Your task to perform on an android device: open app "Microsoft Outlook" (install if not already installed) Image 0: 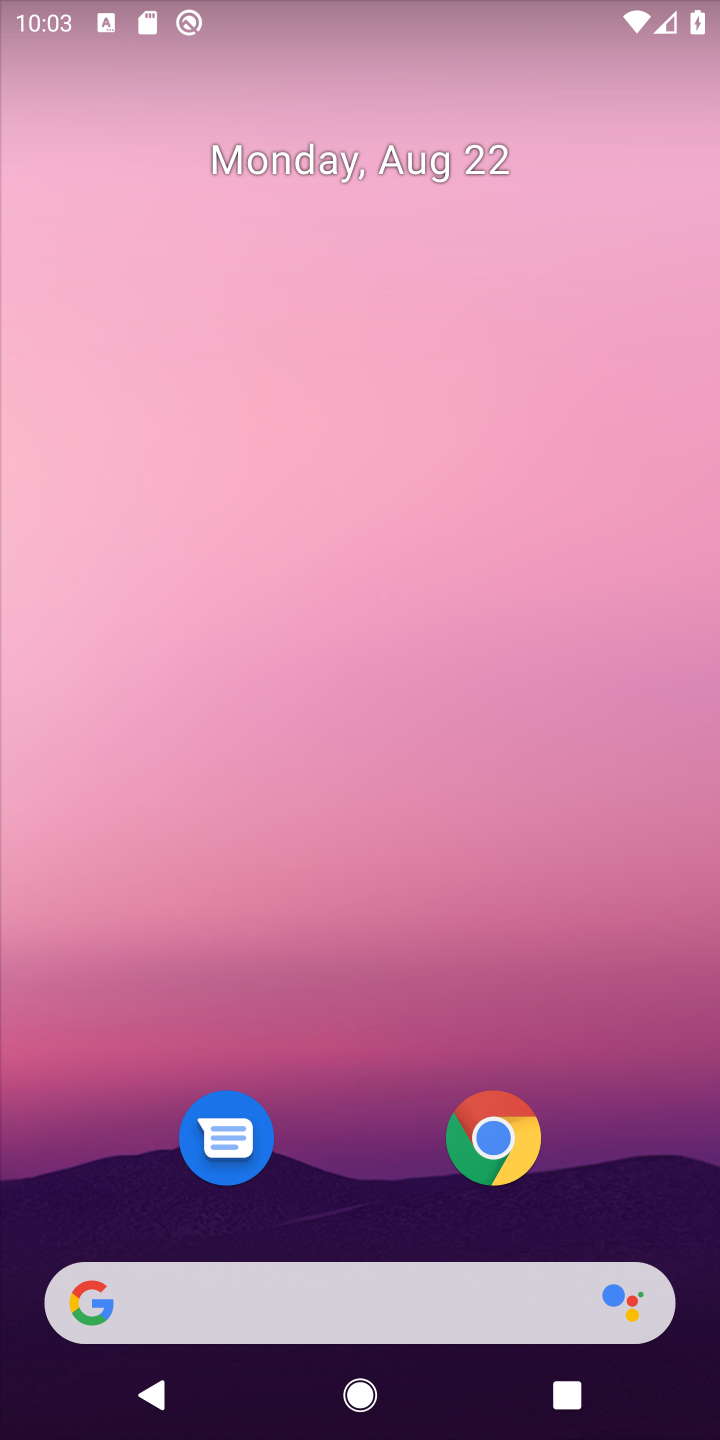
Step 0: drag from (354, 1230) to (365, 89)
Your task to perform on an android device: open app "Microsoft Outlook" (install if not already installed) Image 1: 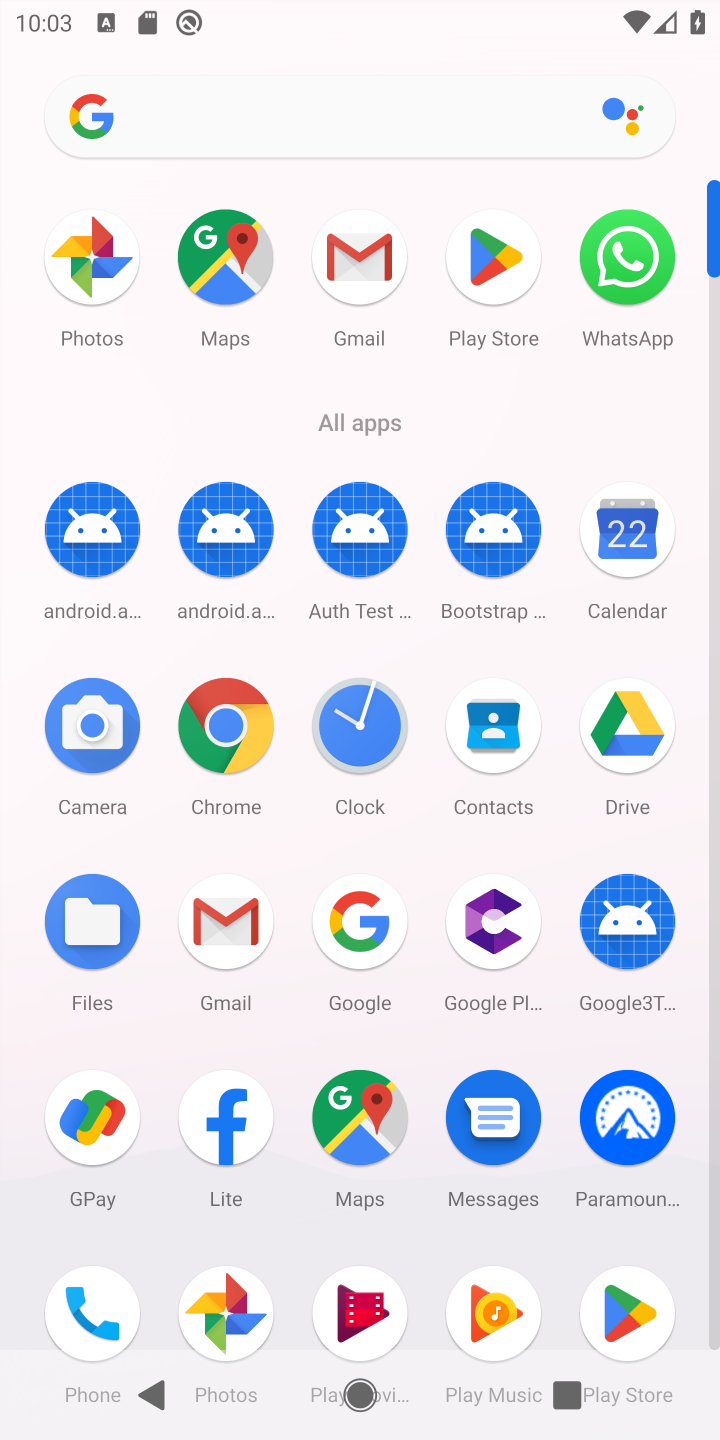
Step 1: click (487, 243)
Your task to perform on an android device: open app "Microsoft Outlook" (install if not already installed) Image 2: 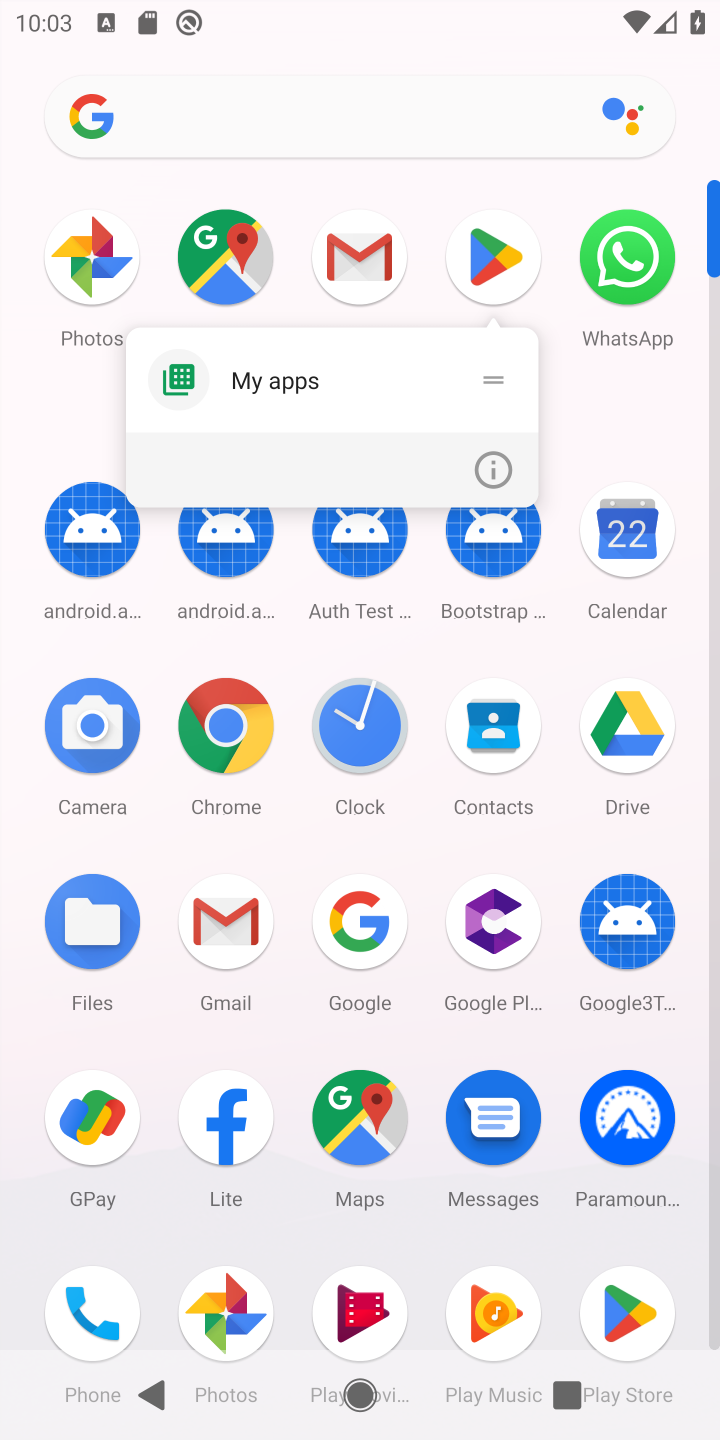
Step 2: click (487, 250)
Your task to perform on an android device: open app "Microsoft Outlook" (install if not already installed) Image 3: 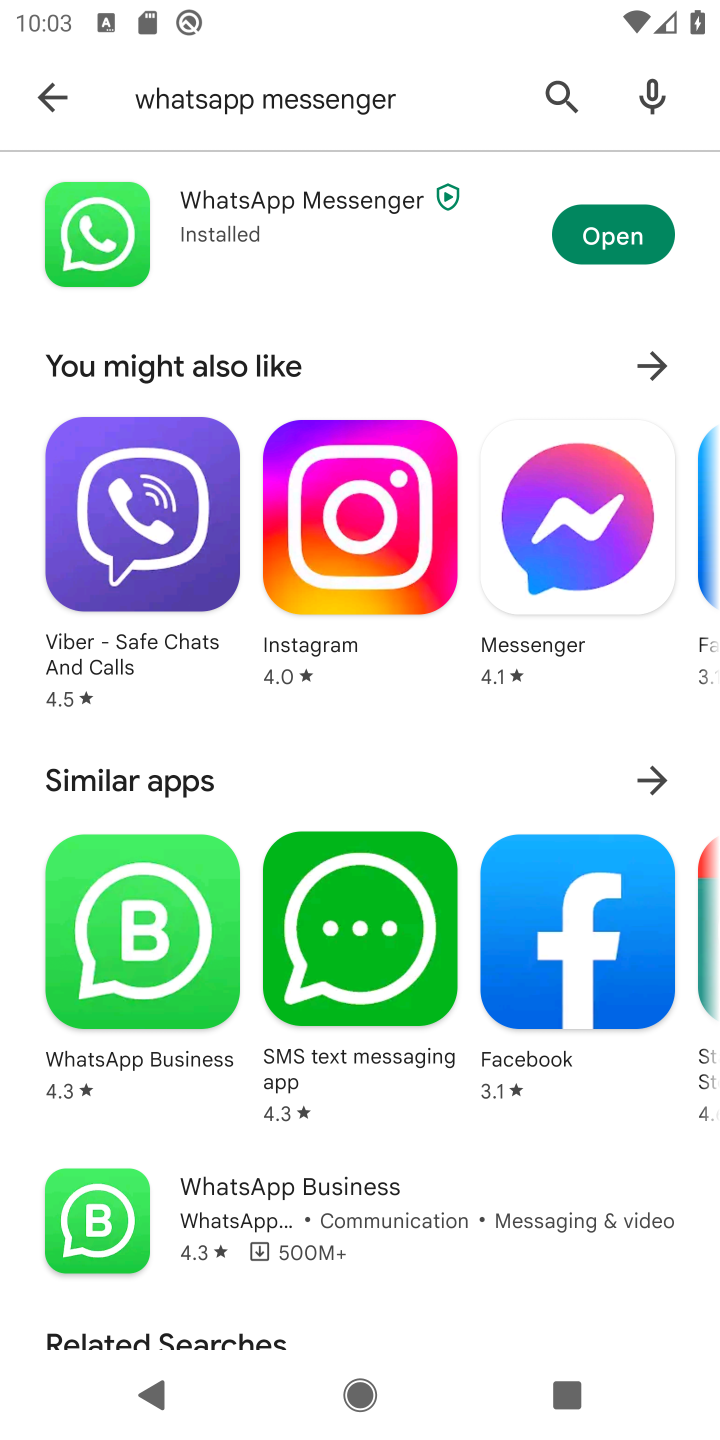
Step 3: click (561, 96)
Your task to perform on an android device: open app "Microsoft Outlook" (install if not already installed) Image 4: 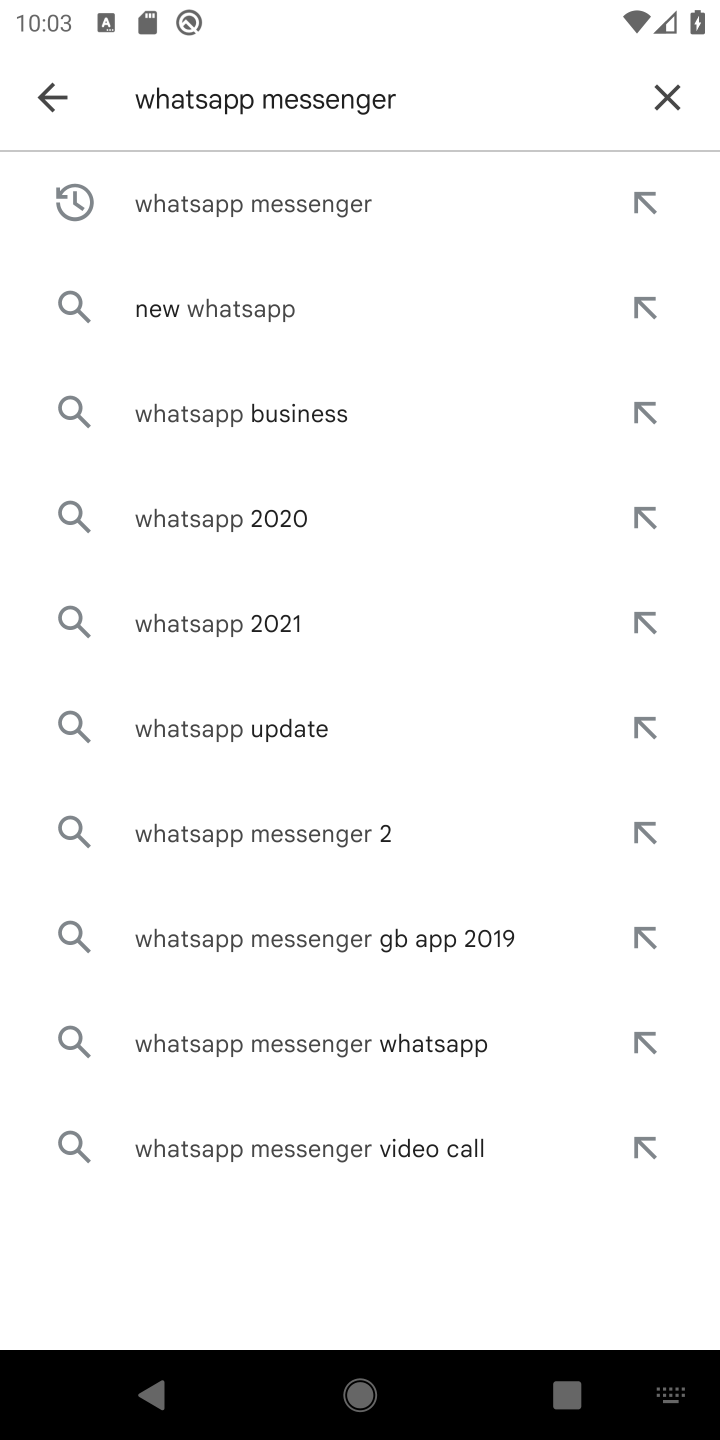
Step 4: click (667, 96)
Your task to perform on an android device: open app "Microsoft Outlook" (install if not already installed) Image 5: 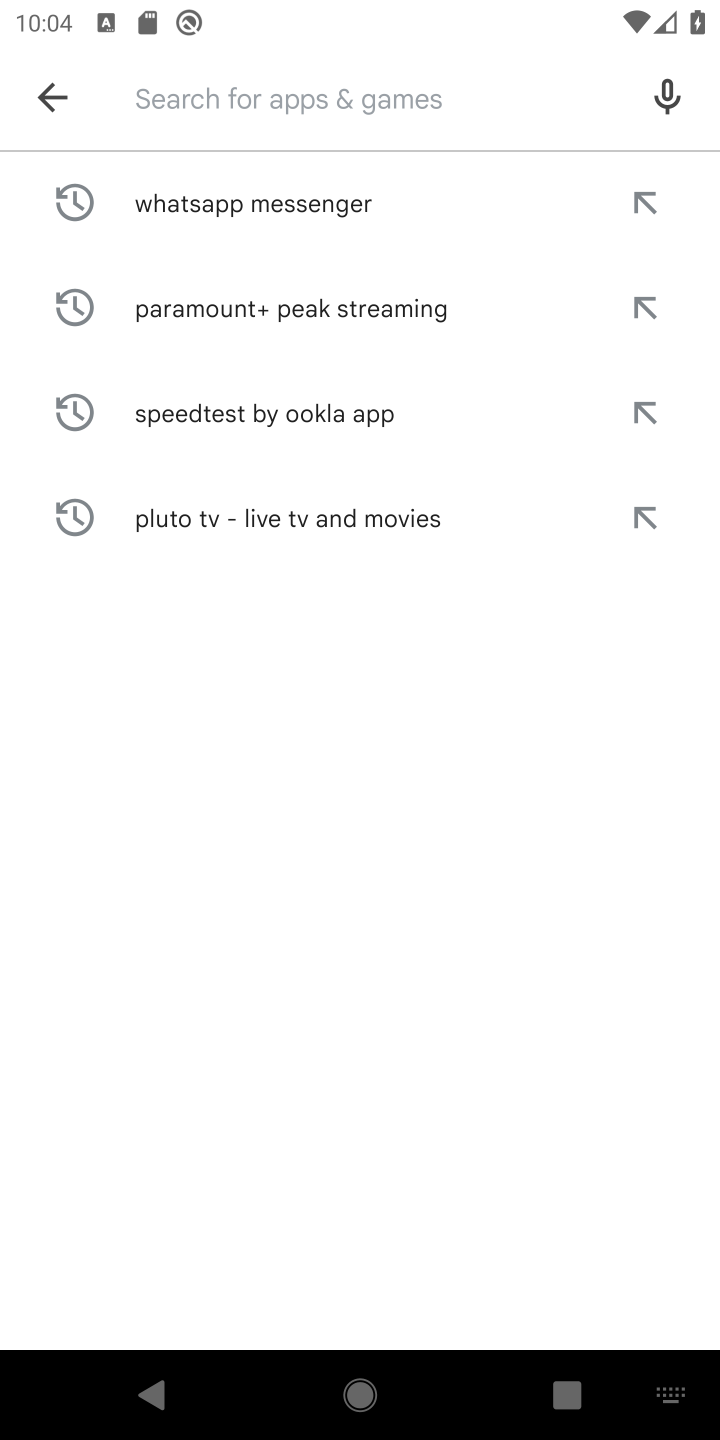
Step 5: type "Microsoft Outlook"
Your task to perform on an android device: open app "Microsoft Outlook" (install if not already installed) Image 6: 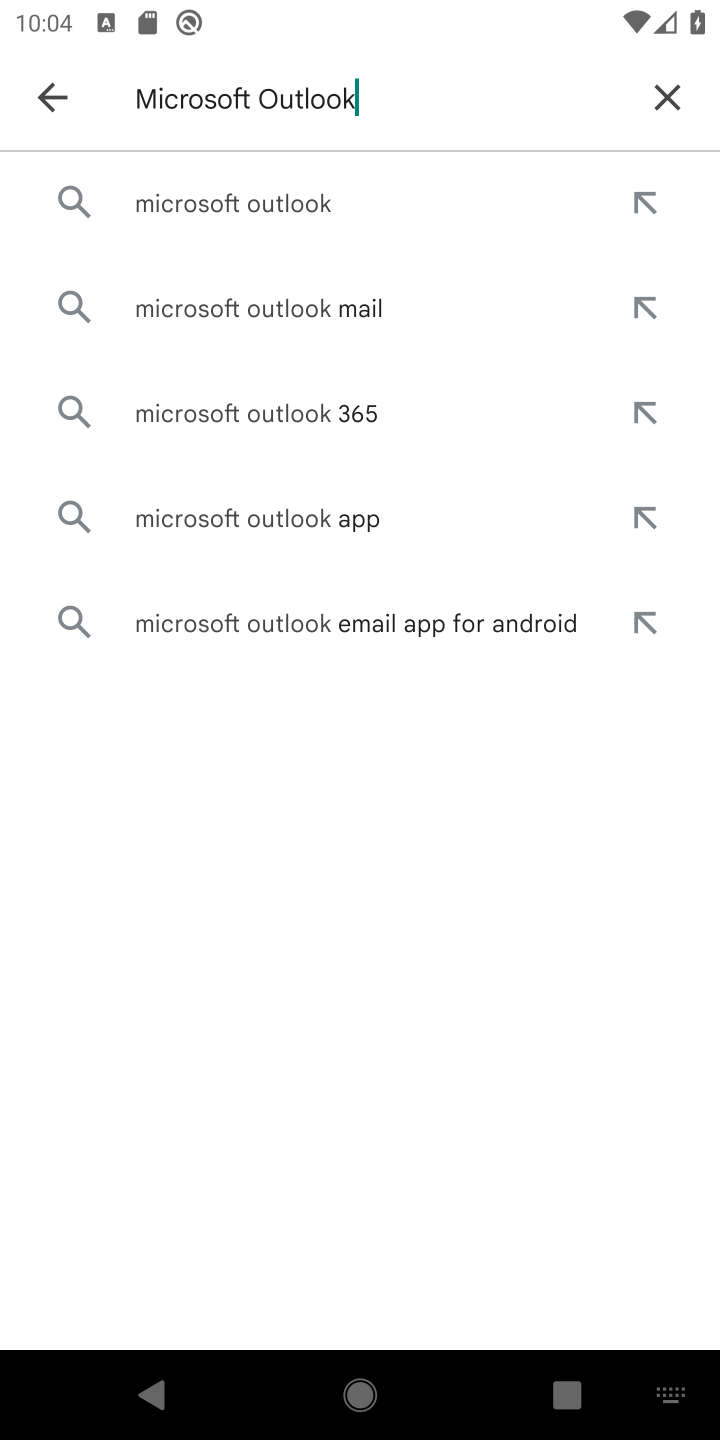
Step 6: click (347, 201)
Your task to perform on an android device: open app "Microsoft Outlook" (install if not already installed) Image 7: 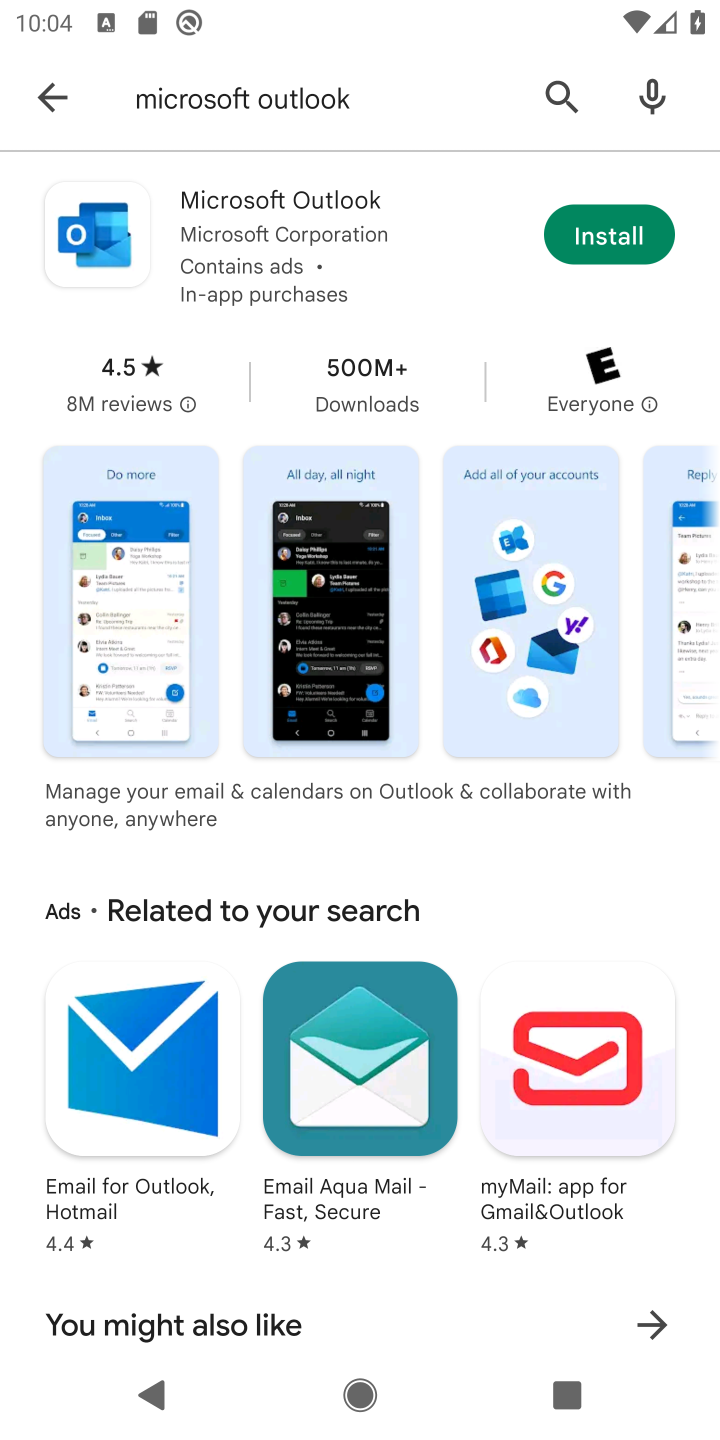
Step 7: click (611, 234)
Your task to perform on an android device: open app "Microsoft Outlook" (install if not already installed) Image 8: 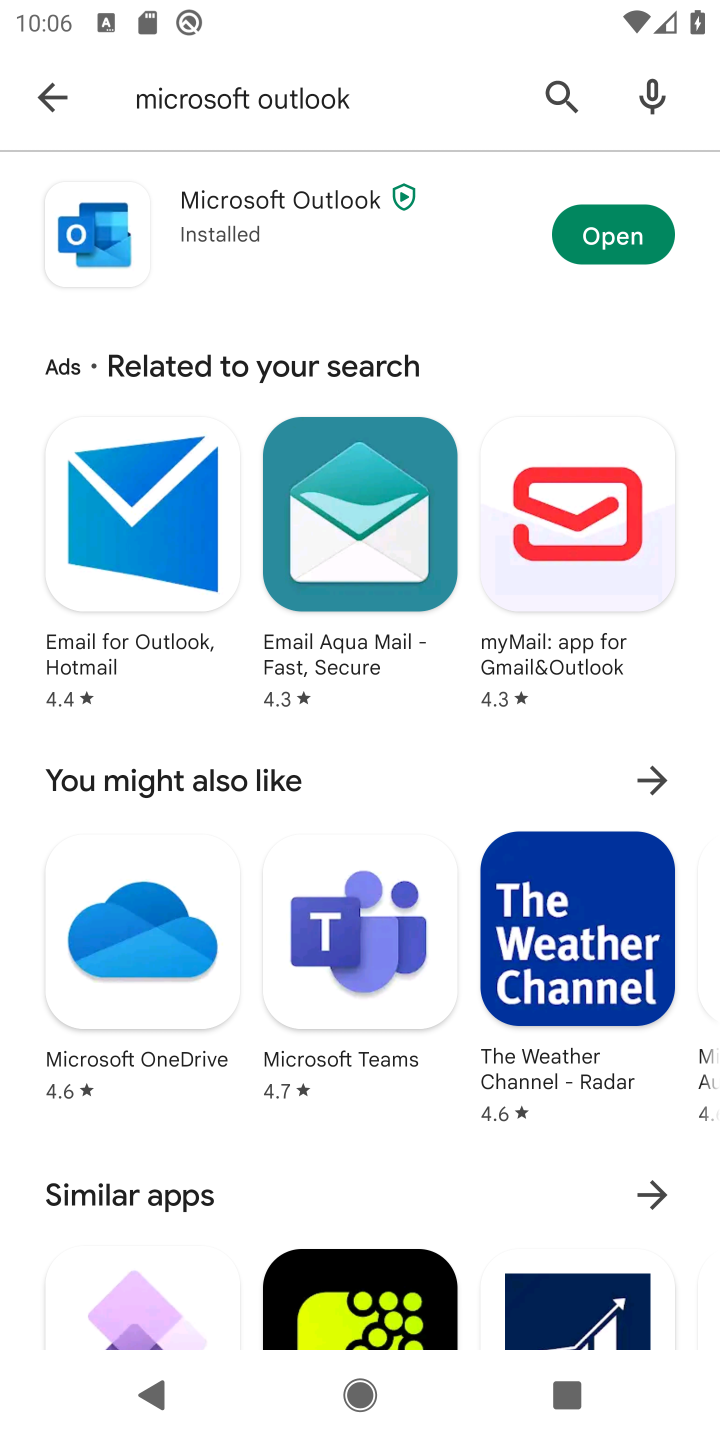
Step 8: click (609, 220)
Your task to perform on an android device: open app "Microsoft Outlook" (install if not already installed) Image 9: 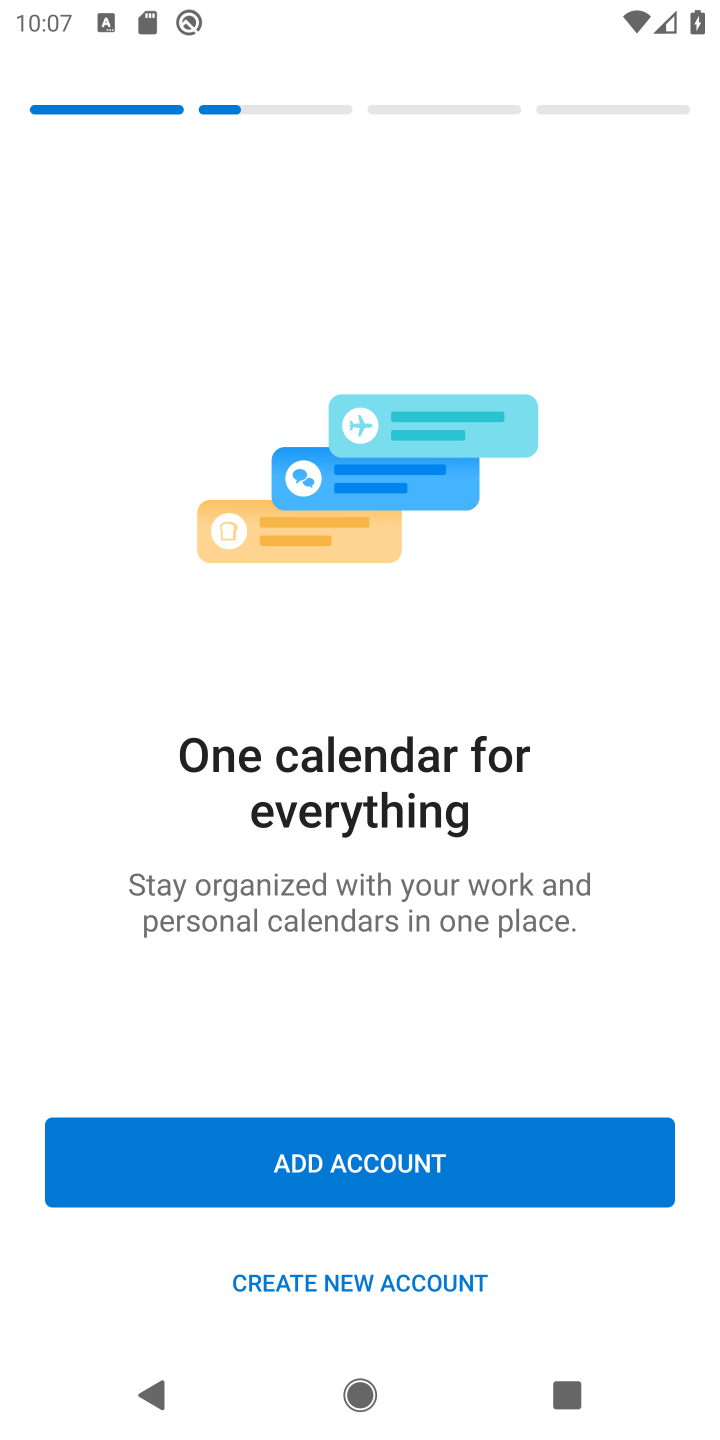
Step 9: click (393, 1170)
Your task to perform on an android device: open app "Microsoft Outlook" (install if not already installed) Image 10: 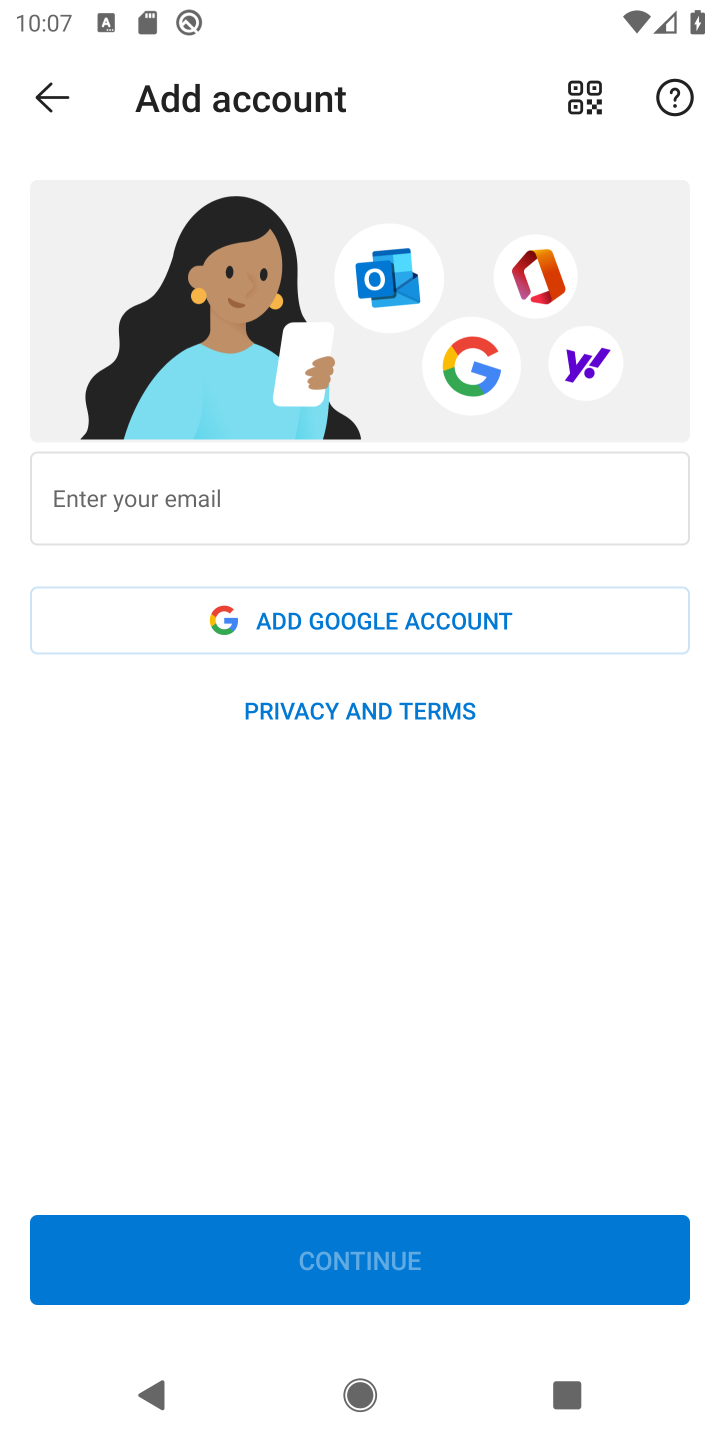
Step 10: task complete